Your task to perform on an android device: Open Chrome and go to settings Image 0: 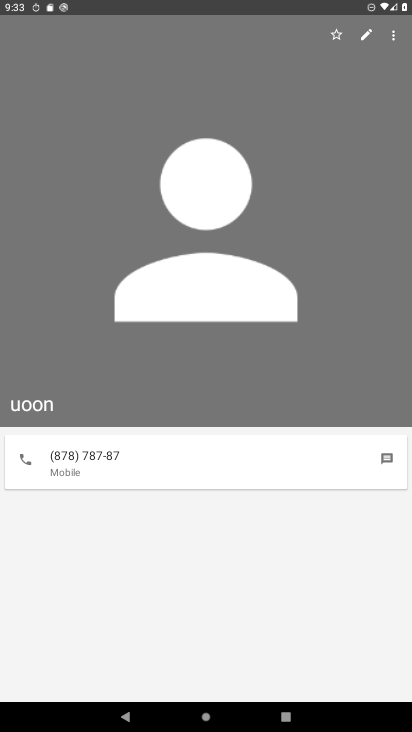
Step 0: press home button
Your task to perform on an android device: Open Chrome and go to settings Image 1: 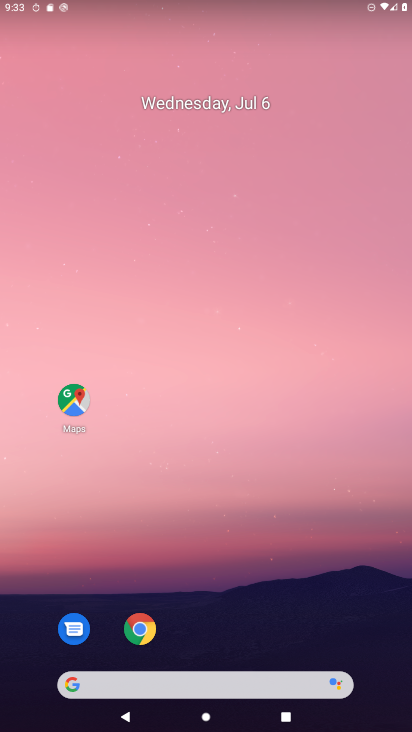
Step 1: drag from (239, 709) to (230, 176)
Your task to perform on an android device: Open Chrome and go to settings Image 2: 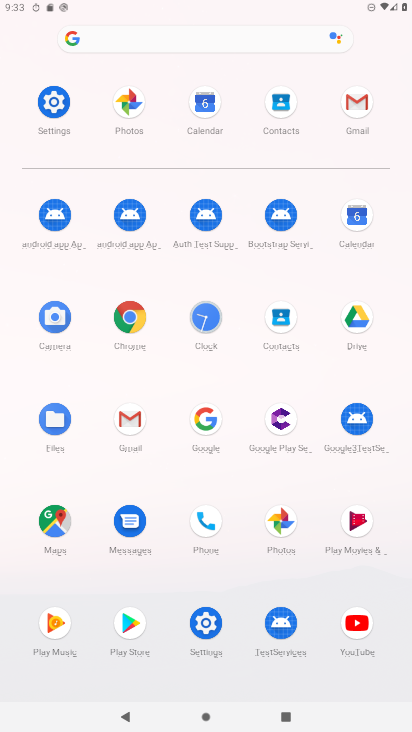
Step 2: click (127, 315)
Your task to perform on an android device: Open Chrome and go to settings Image 3: 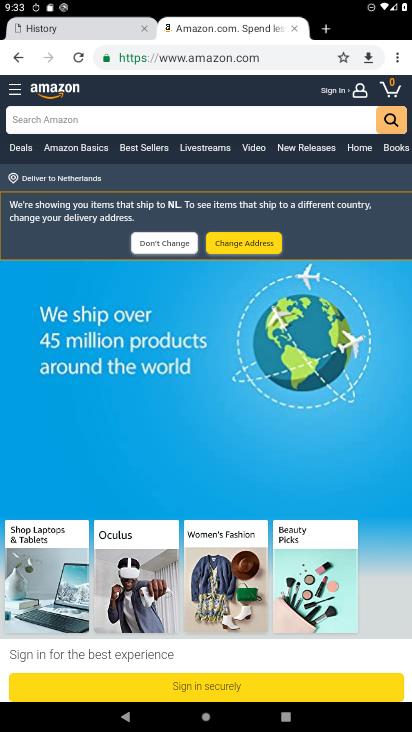
Step 3: click (397, 60)
Your task to perform on an android device: Open Chrome and go to settings Image 4: 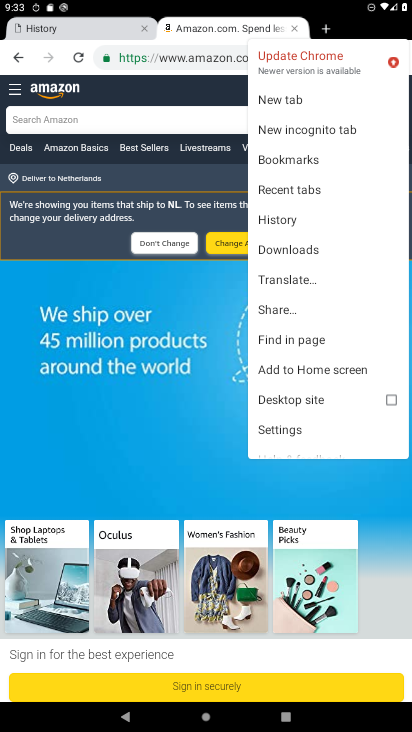
Step 4: click (281, 426)
Your task to perform on an android device: Open Chrome and go to settings Image 5: 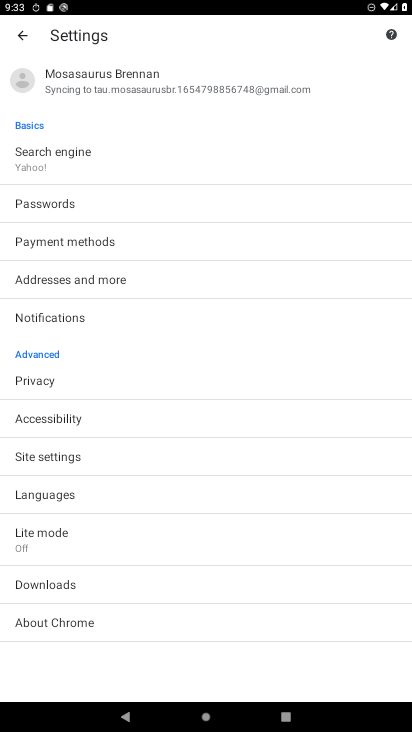
Step 5: drag from (115, 625) to (123, 518)
Your task to perform on an android device: Open Chrome and go to settings Image 6: 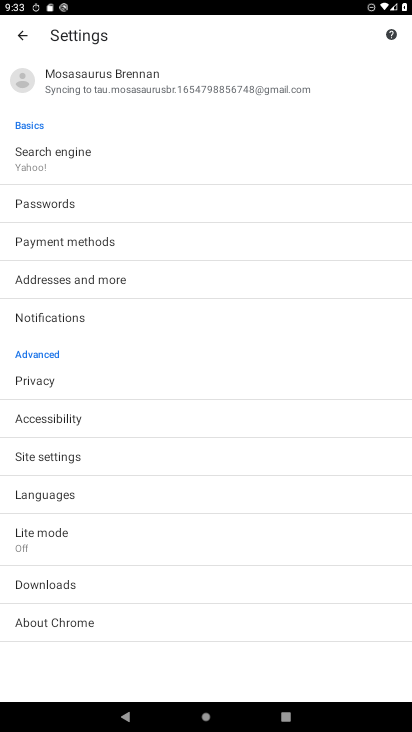
Step 6: click (123, 234)
Your task to perform on an android device: Open Chrome and go to settings Image 7: 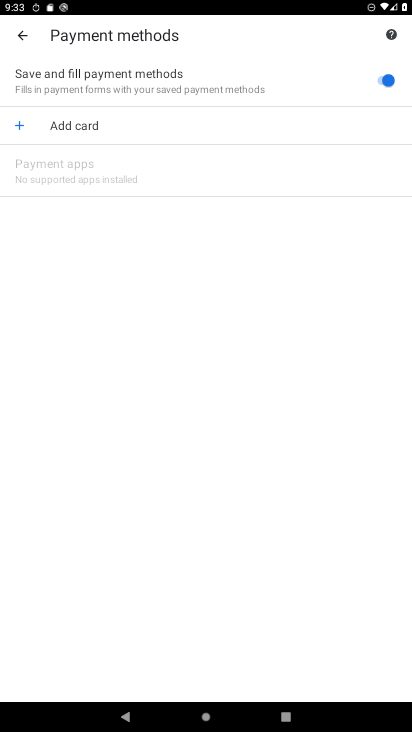
Step 7: click (26, 30)
Your task to perform on an android device: Open Chrome and go to settings Image 8: 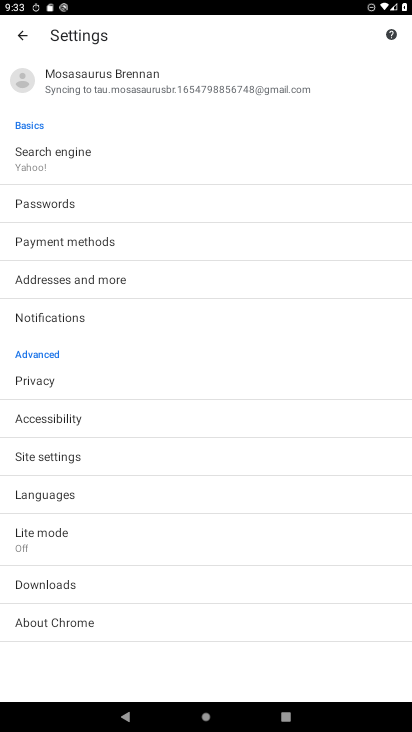
Step 8: task complete